Your task to perform on an android device: open device folders in google photos Image 0: 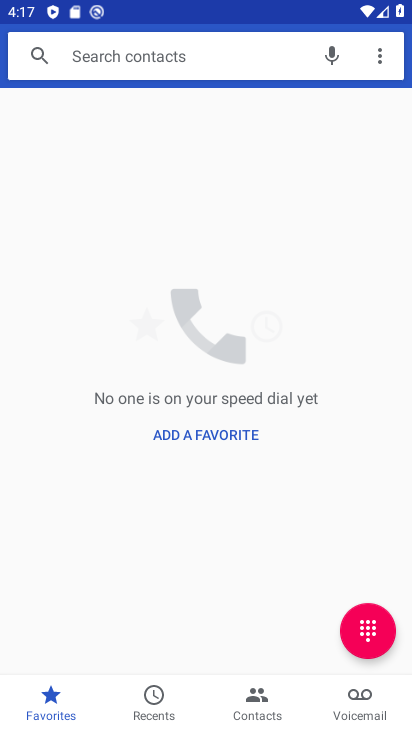
Step 0: press back button
Your task to perform on an android device: open device folders in google photos Image 1: 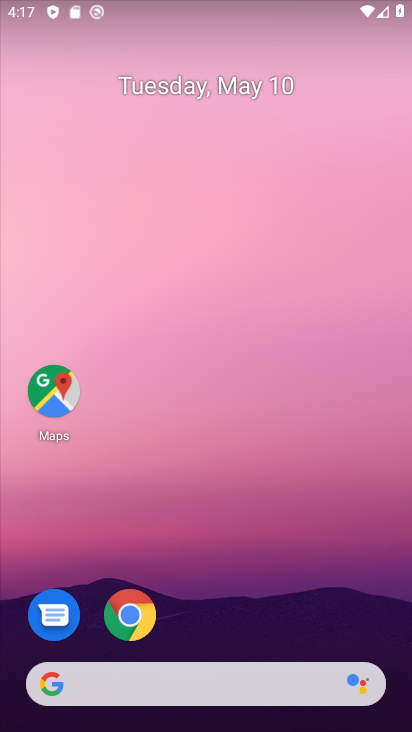
Step 1: drag from (214, 638) to (303, 161)
Your task to perform on an android device: open device folders in google photos Image 2: 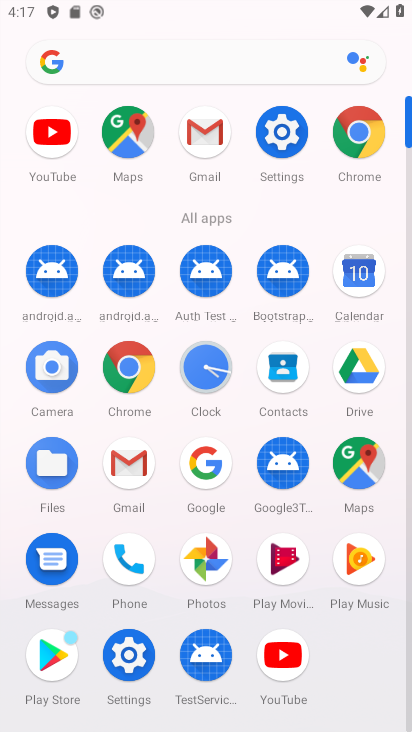
Step 2: click (210, 561)
Your task to perform on an android device: open device folders in google photos Image 3: 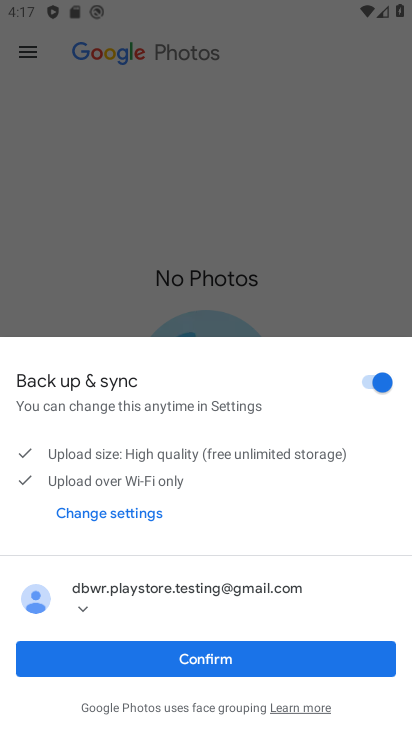
Step 3: click (249, 650)
Your task to perform on an android device: open device folders in google photos Image 4: 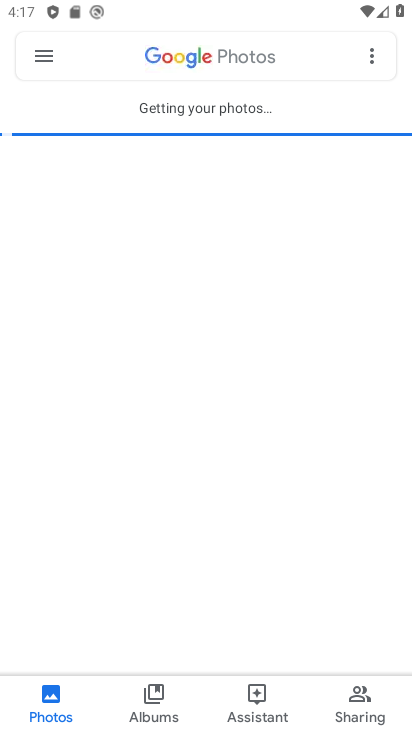
Step 4: click (33, 43)
Your task to perform on an android device: open device folders in google photos Image 5: 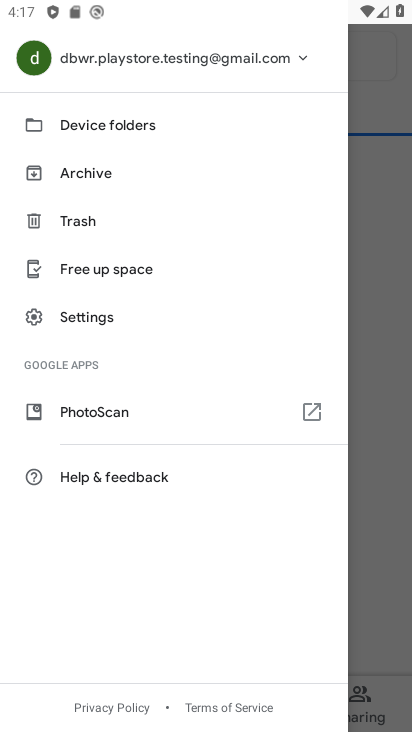
Step 5: click (157, 128)
Your task to perform on an android device: open device folders in google photos Image 6: 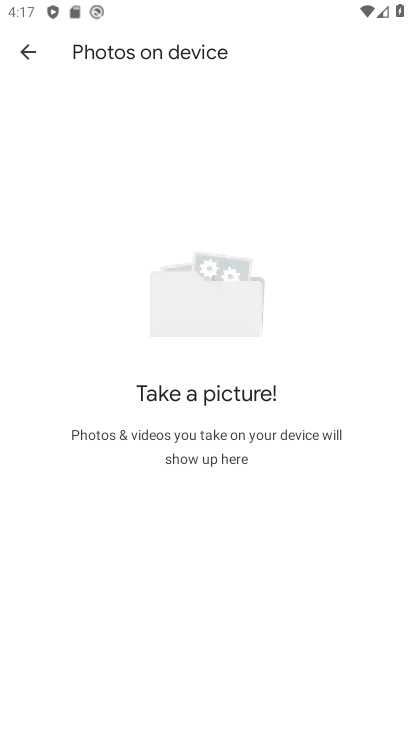
Step 6: task complete